Your task to perform on an android device: see sites visited before in the chrome app Image 0: 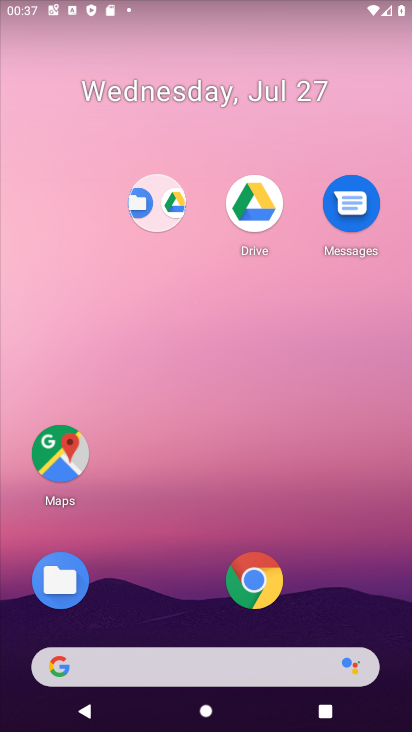
Step 0: click (268, 566)
Your task to perform on an android device: see sites visited before in the chrome app Image 1: 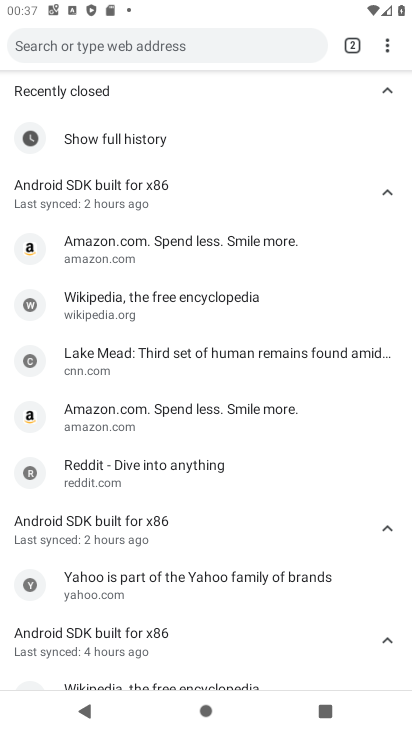
Step 1: task complete